Your task to perform on an android device: check the backup settings in the google photos Image 0: 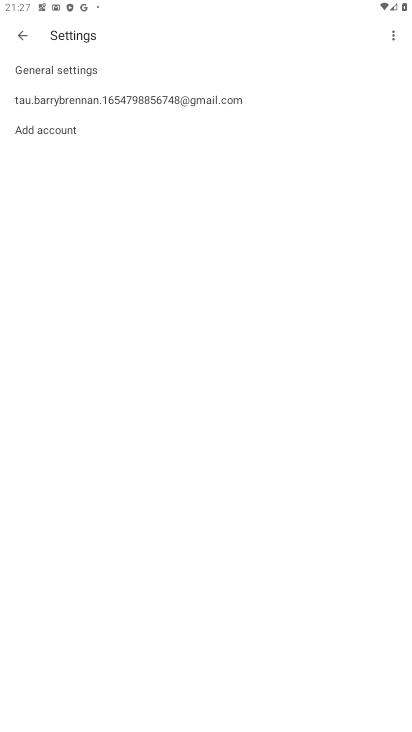
Step 0: press home button
Your task to perform on an android device: check the backup settings in the google photos Image 1: 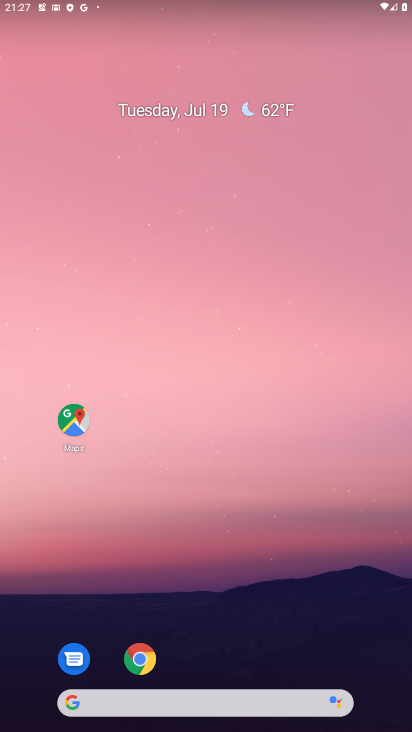
Step 1: drag from (282, 627) to (263, 128)
Your task to perform on an android device: check the backup settings in the google photos Image 2: 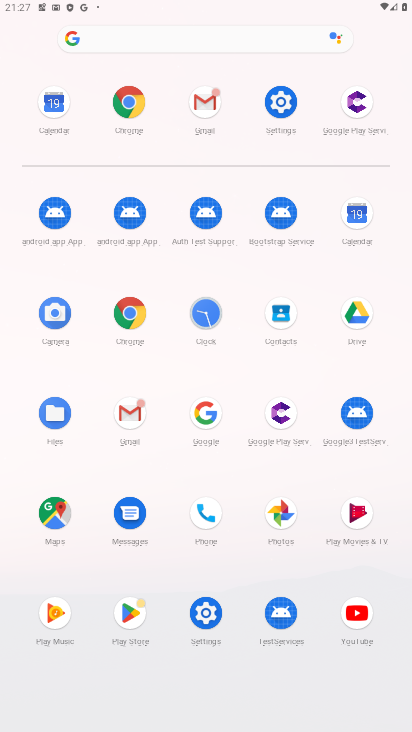
Step 2: click (275, 502)
Your task to perform on an android device: check the backup settings in the google photos Image 3: 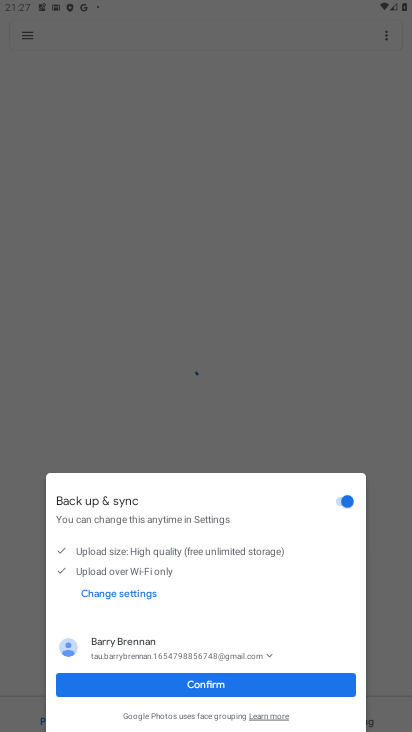
Step 3: click (29, 37)
Your task to perform on an android device: check the backup settings in the google photos Image 4: 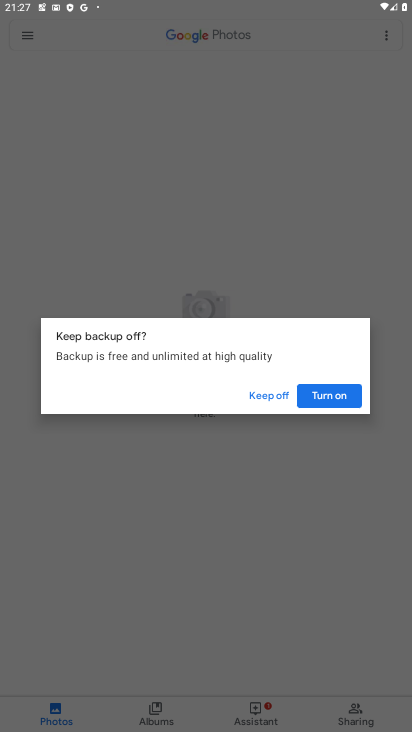
Step 4: click (318, 403)
Your task to perform on an android device: check the backup settings in the google photos Image 5: 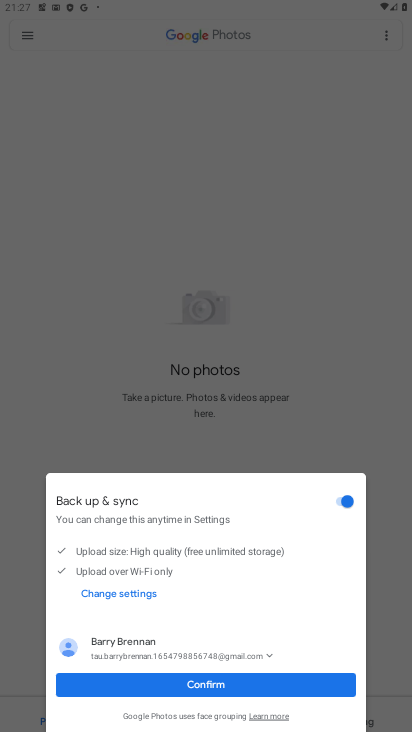
Step 5: click (207, 677)
Your task to perform on an android device: check the backup settings in the google photos Image 6: 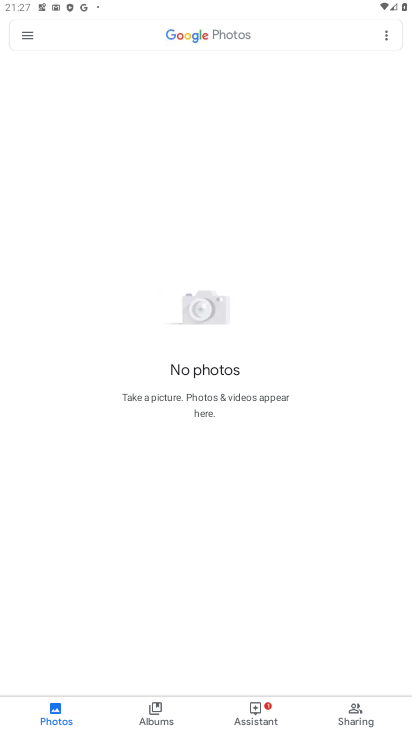
Step 6: click (22, 46)
Your task to perform on an android device: check the backup settings in the google photos Image 7: 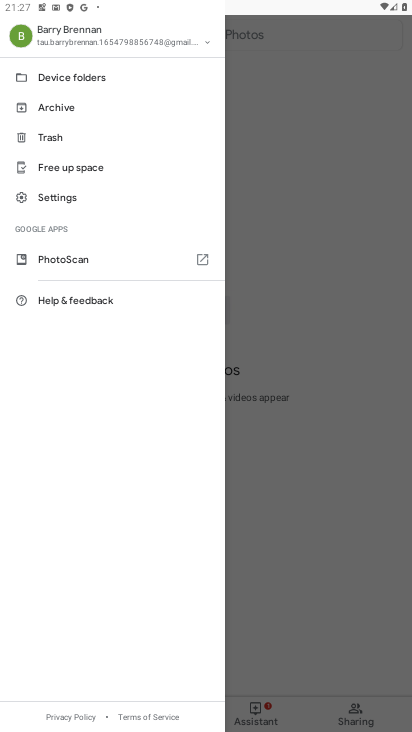
Step 7: click (30, 191)
Your task to perform on an android device: check the backup settings in the google photos Image 8: 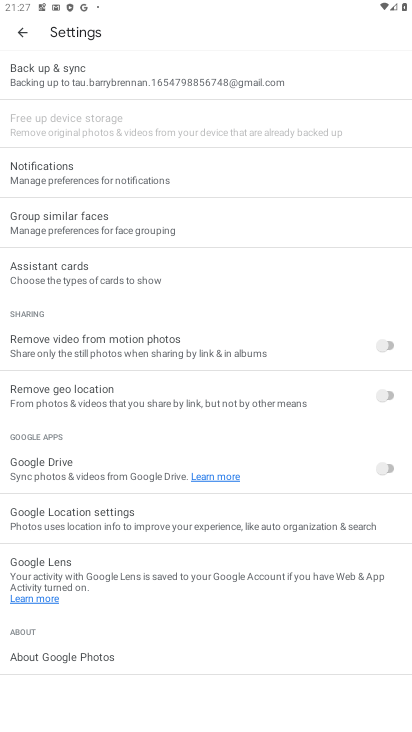
Step 8: click (54, 76)
Your task to perform on an android device: check the backup settings in the google photos Image 9: 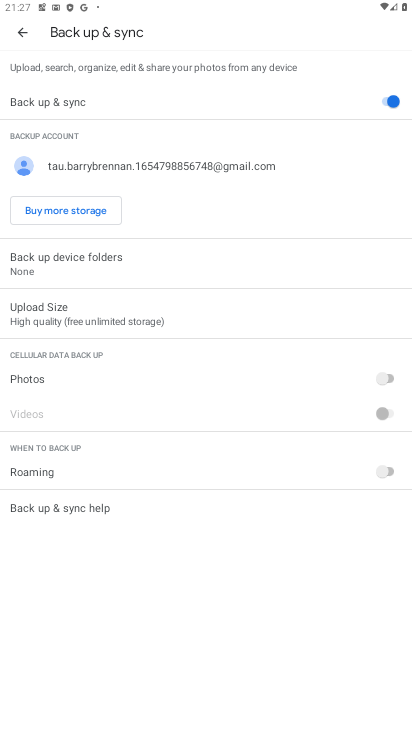
Step 9: task complete